Your task to perform on an android device: Open internet settings Image 0: 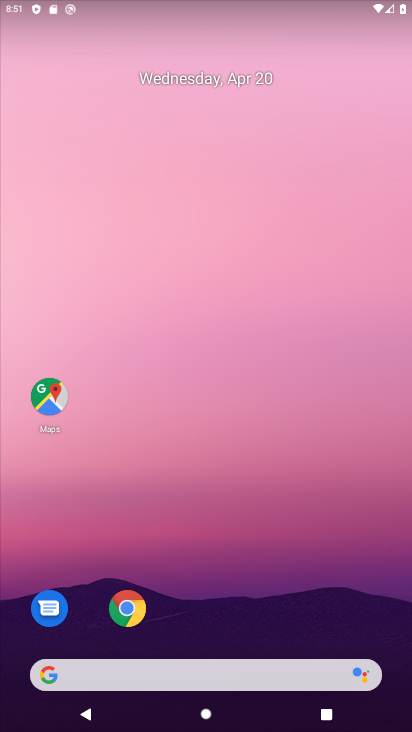
Step 0: drag from (318, 586) to (283, 223)
Your task to perform on an android device: Open internet settings Image 1: 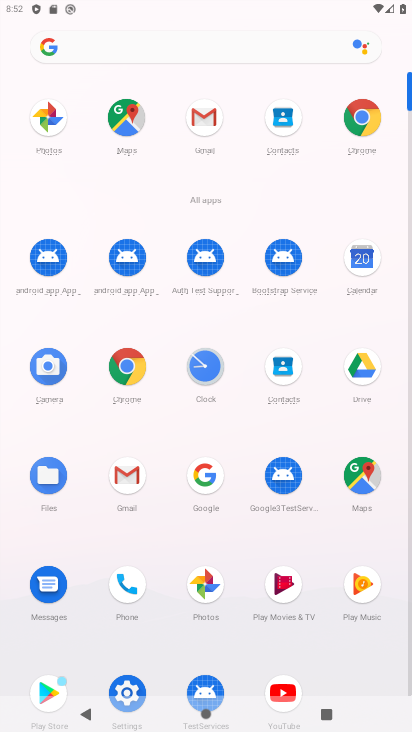
Step 1: click (128, 680)
Your task to perform on an android device: Open internet settings Image 2: 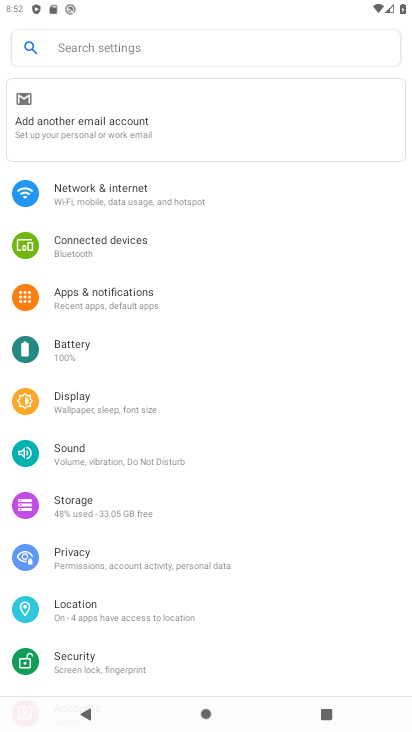
Step 2: click (247, 206)
Your task to perform on an android device: Open internet settings Image 3: 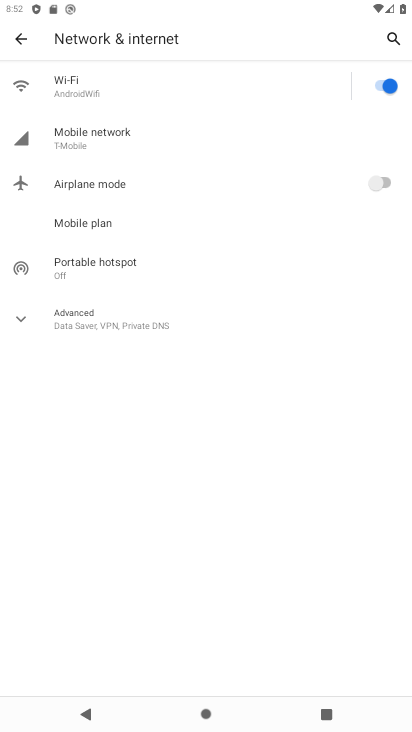
Step 3: click (213, 140)
Your task to perform on an android device: Open internet settings Image 4: 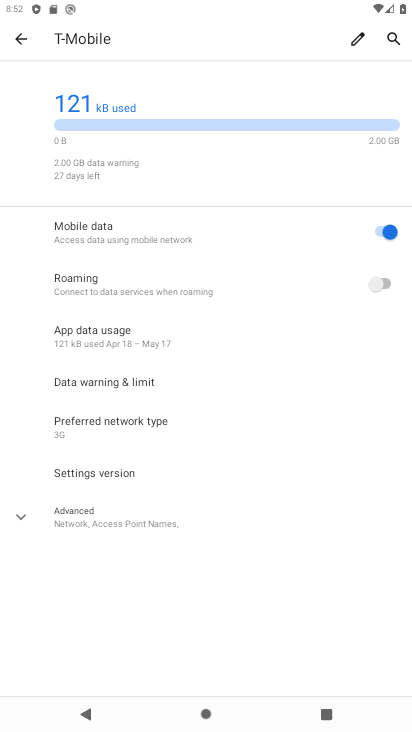
Step 4: task complete